Your task to perform on an android device: turn pop-ups off in chrome Image 0: 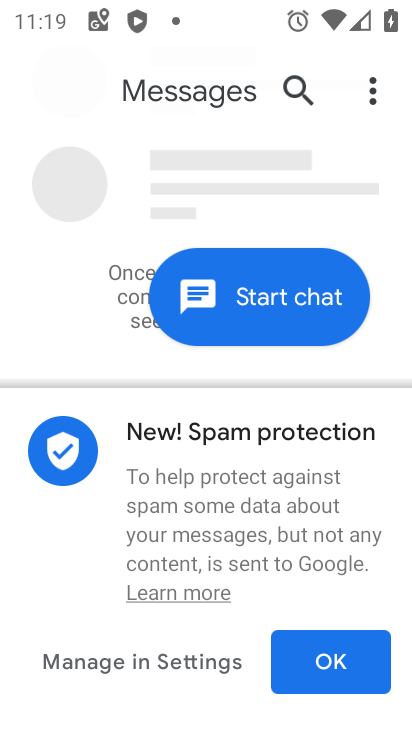
Step 0: press home button
Your task to perform on an android device: turn pop-ups off in chrome Image 1: 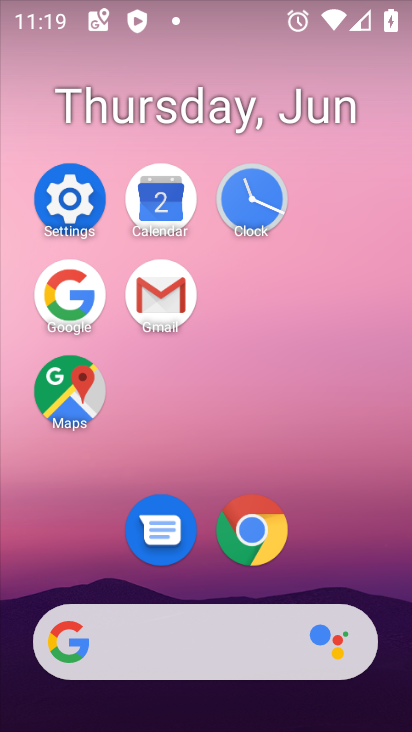
Step 1: click (255, 533)
Your task to perform on an android device: turn pop-ups off in chrome Image 2: 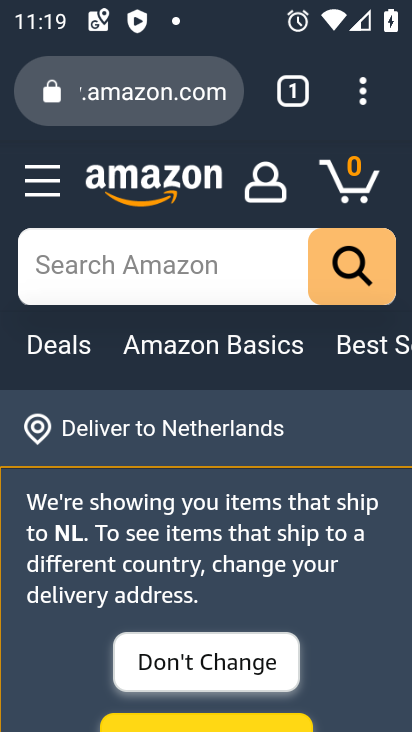
Step 2: click (370, 82)
Your task to perform on an android device: turn pop-ups off in chrome Image 3: 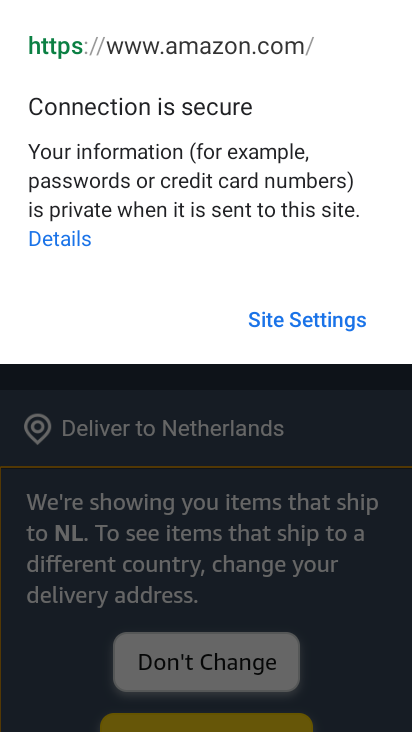
Step 3: click (377, 597)
Your task to perform on an android device: turn pop-ups off in chrome Image 4: 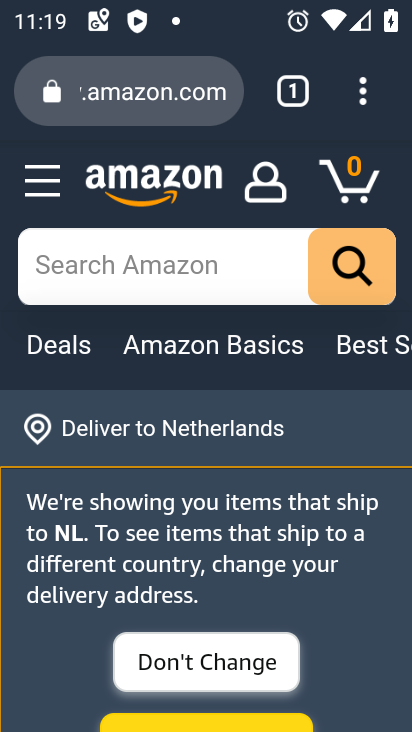
Step 4: click (355, 90)
Your task to perform on an android device: turn pop-ups off in chrome Image 5: 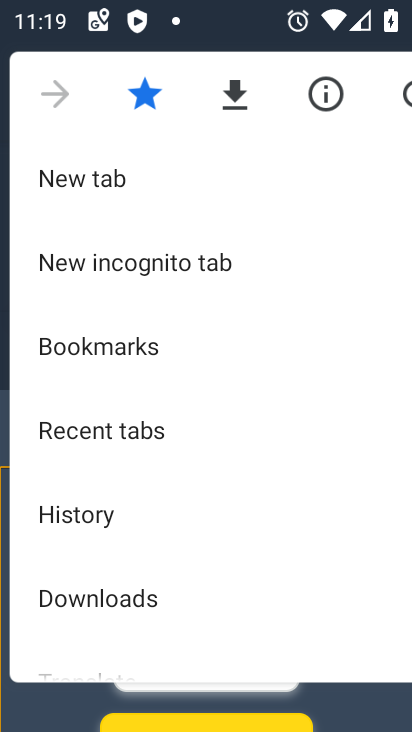
Step 5: drag from (233, 482) to (285, 158)
Your task to perform on an android device: turn pop-ups off in chrome Image 6: 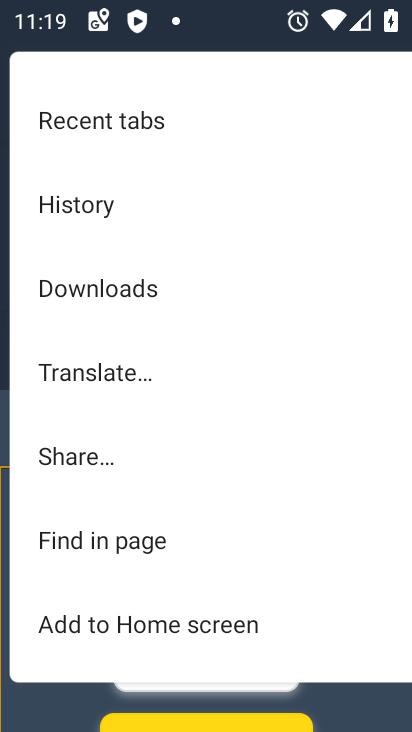
Step 6: drag from (165, 615) to (221, 247)
Your task to perform on an android device: turn pop-ups off in chrome Image 7: 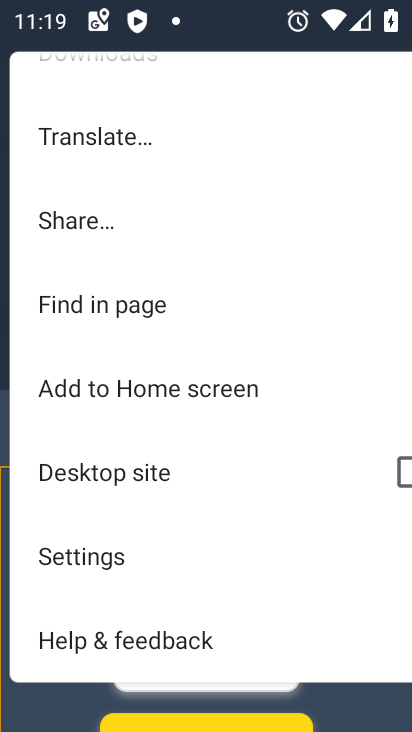
Step 7: click (113, 582)
Your task to perform on an android device: turn pop-ups off in chrome Image 8: 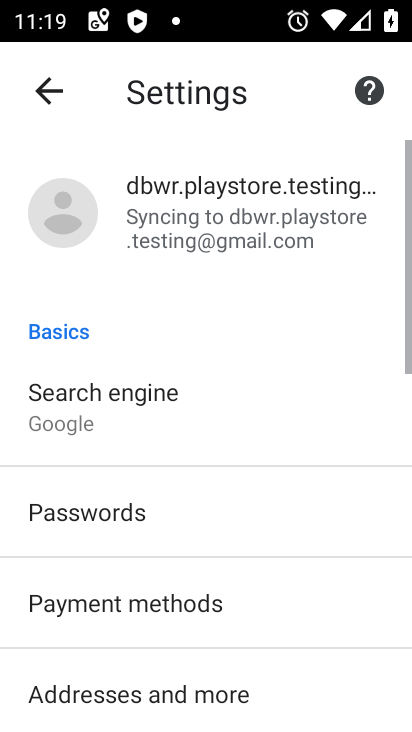
Step 8: drag from (141, 524) to (202, 210)
Your task to perform on an android device: turn pop-ups off in chrome Image 9: 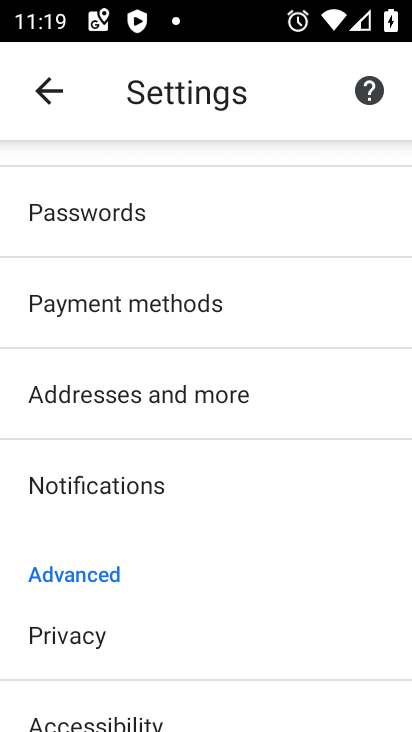
Step 9: drag from (177, 589) to (224, 174)
Your task to perform on an android device: turn pop-ups off in chrome Image 10: 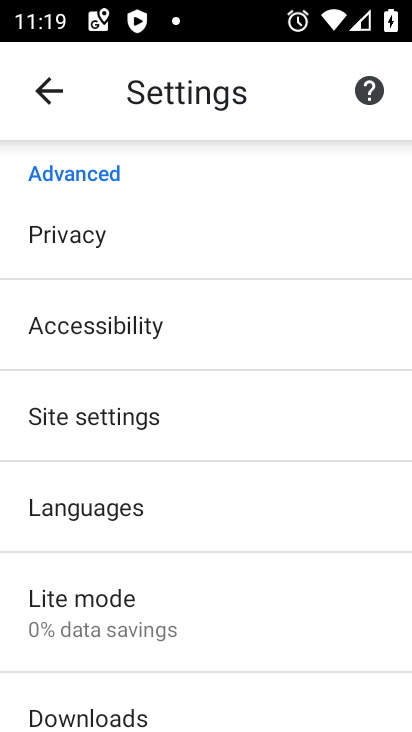
Step 10: click (196, 434)
Your task to perform on an android device: turn pop-ups off in chrome Image 11: 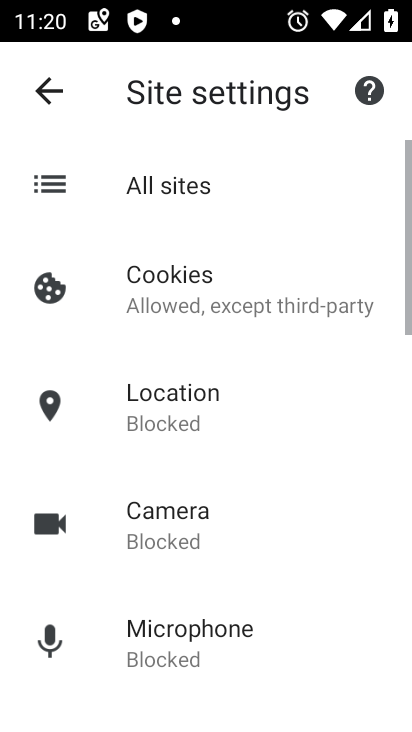
Step 11: drag from (164, 555) to (216, 202)
Your task to perform on an android device: turn pop-ups off in chrome Image 12: 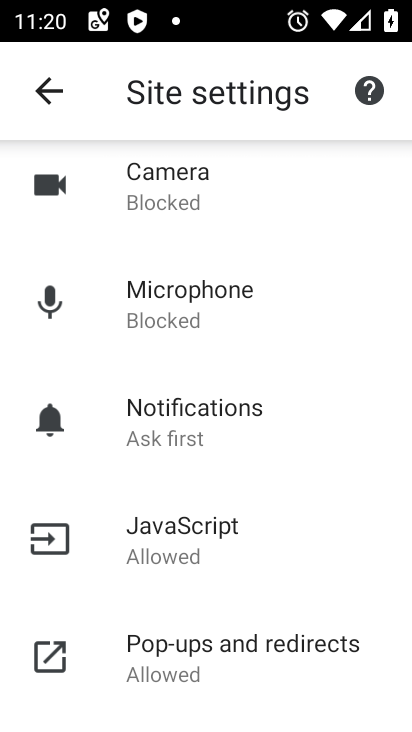
Step 12: click (191, 638)
Your task to perform on an android device: turn pop-ups off in chrome Image 13: 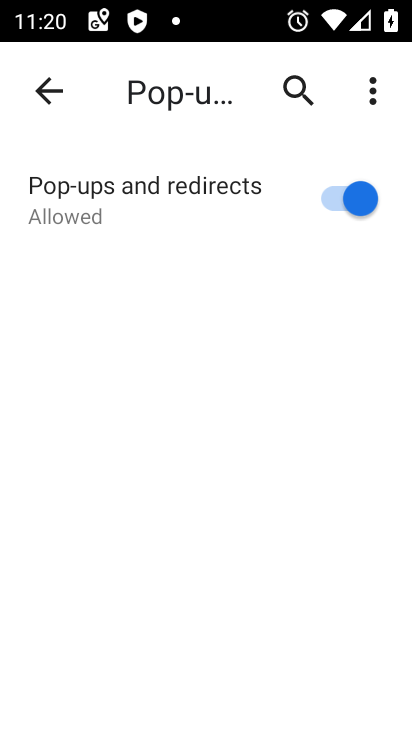
Step 13: click (363, 212)
Your task to perform on an android device: turn pop-ups off in chrome Image 14: 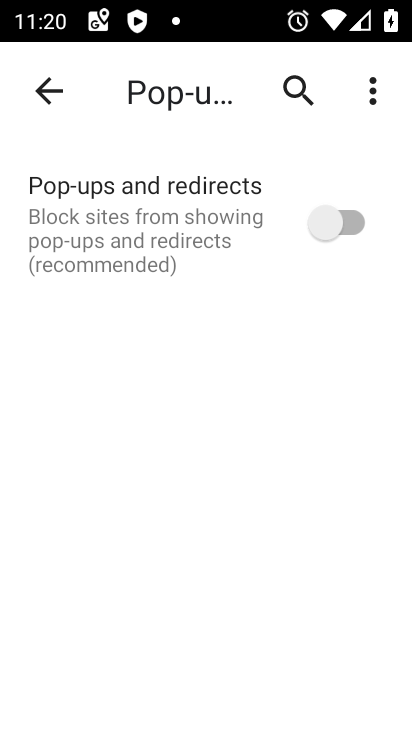
Step 14: task complete